Your task to perform on an android device: Open the Play Movies app and select the watchlist tab. Image 0: 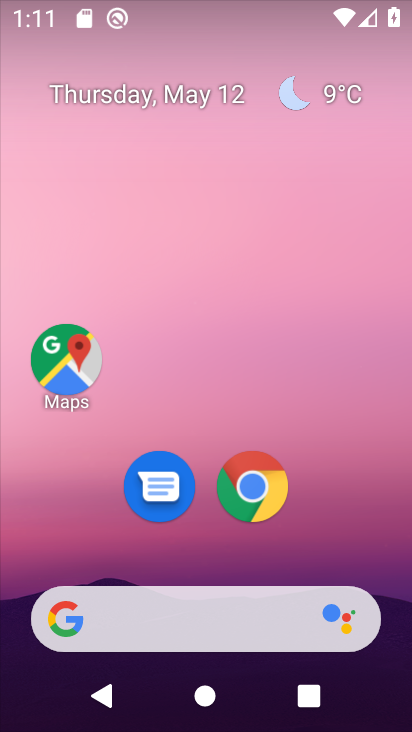
Step 0: drag from (227, 574) to (184, 137)
Your task to perform on an android device: Open the Play Movies app and select the watchlist tab. Image 1: 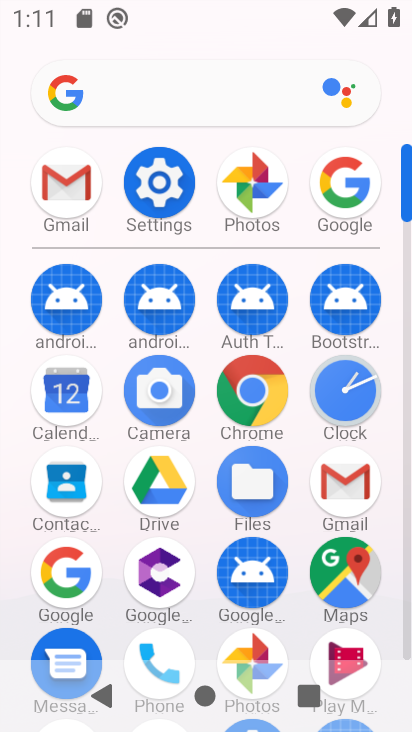
Step 1: click (368, 655)
Your task to perform on an android device: Open the Play Movies app and select the watchlist tab. Image 2: 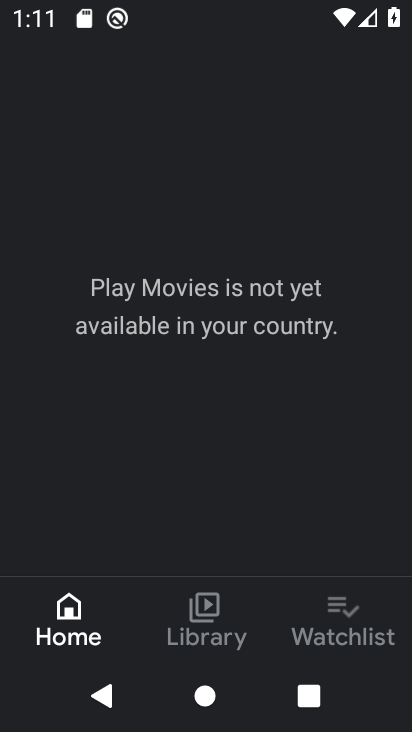
Step 2: click (311, 645)
Your task to perform on an android device: Open the Play Movies app and select the watchlist tab. Image 3: 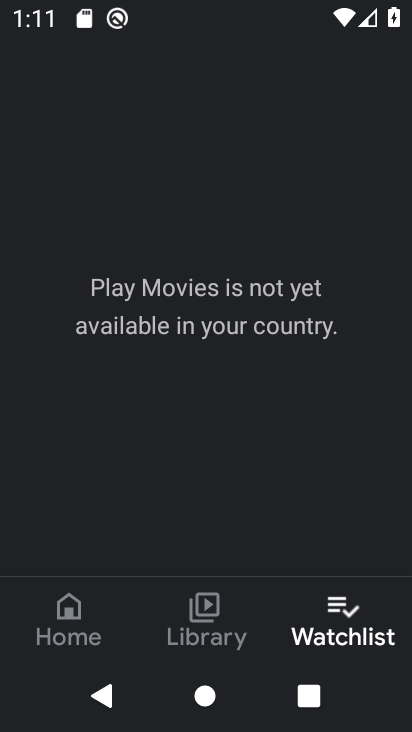
Step 3: task complete